Your task to perform on an android device: Open location settings Image 0: 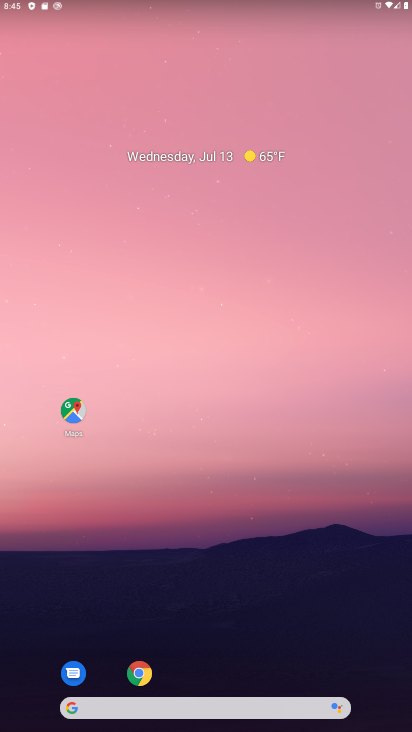
Step 0: drag from (203, 700) to (212, 381)
Your task to perform on an android device: Open location settings Image 1: 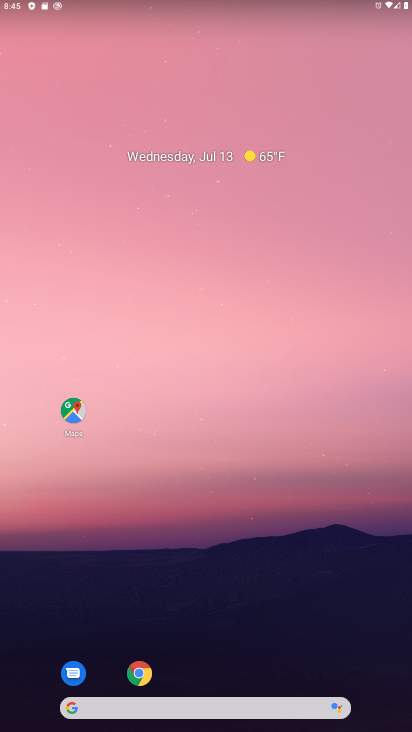
Step 1: drag from (236, 705) to (257, 248)
Your task to perform on an android device: Open location settings Image 2: 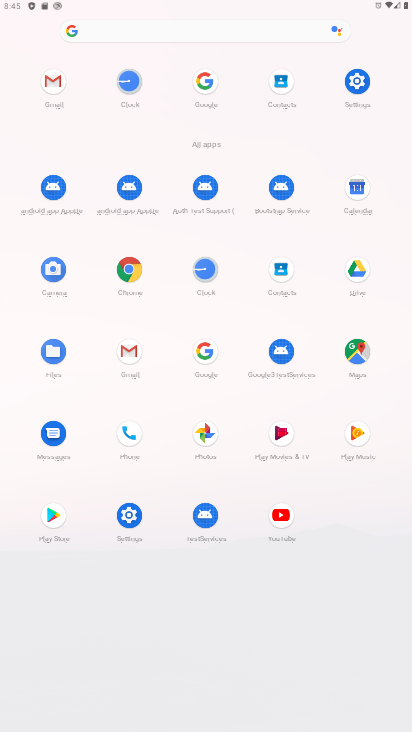
Step 2: click (359, 79)
Your task to perform on an android device: Open location settings Image 3: 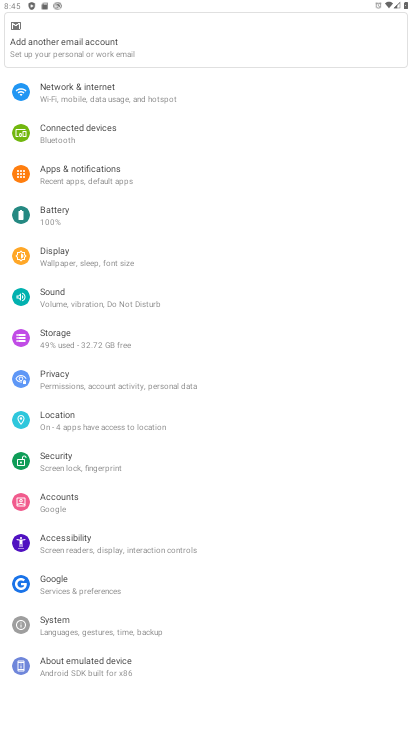
Step 3: click (88, 423)
Your task to perform on an android device: Open location settings Image 4: 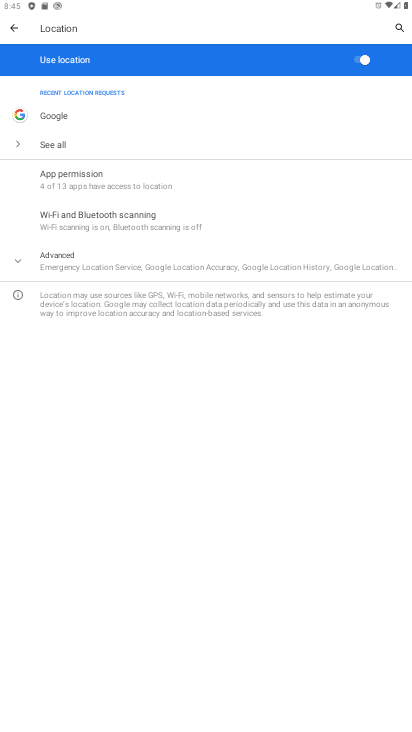
Step 4: task complete